Your task to perform on an android device: check battery use Image 0: 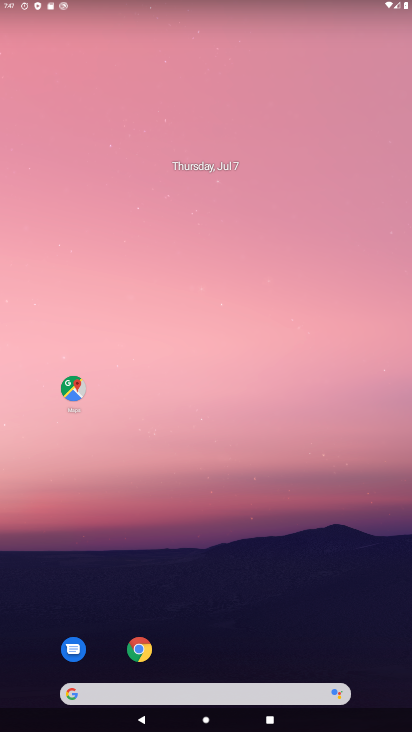
Step 0: drag from (223, 672) to (252, 105)
Your task to perform on an android device: check battery use Image 1: 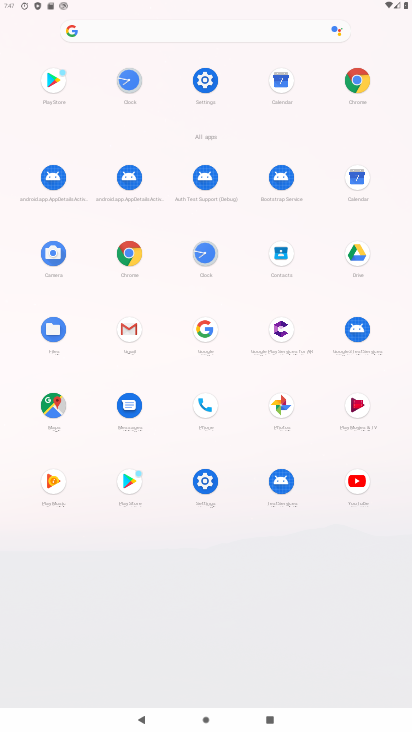
Step 1: click (201, 78)
Your task to perform on an android device: check battery use Image 2: 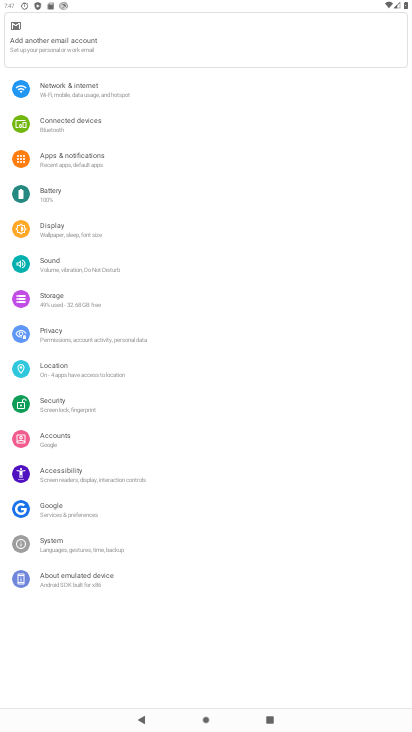
Step 2: click (72, 195)
Your task to perform on an android device: check battery use Image 3: 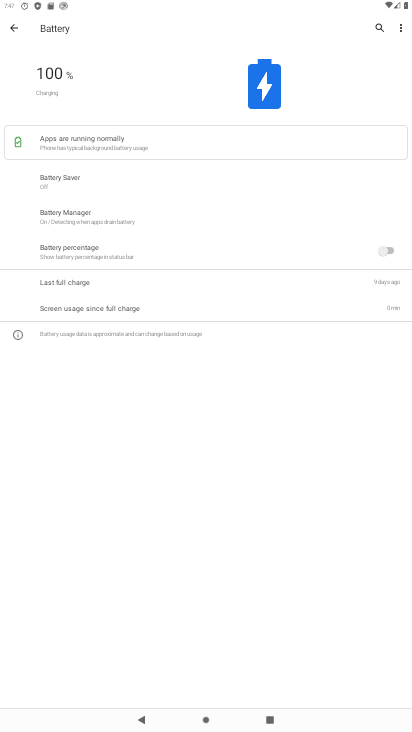
Step 3: click (398, 24)
Your task to perform on an android device: check battery use Image 4: 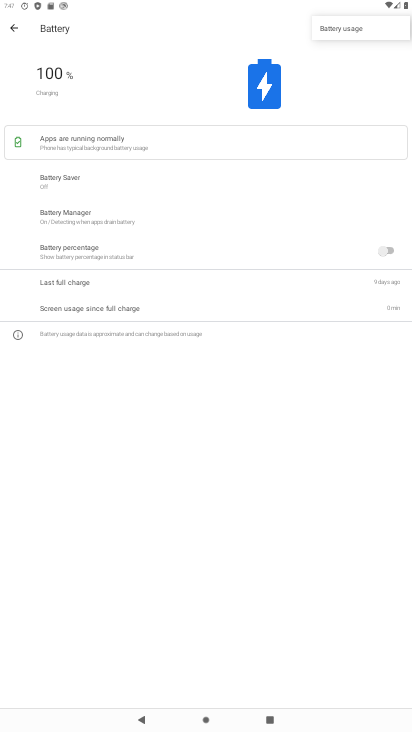
Step 4: click (339, 28)
Your task to perform on an android device: check battery use Image 5: 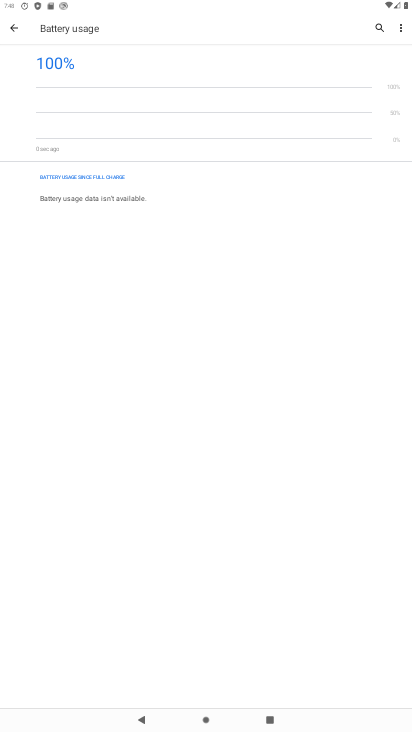
Step 5: task complete